Your task to perform on an android device: Open Google Image 0: 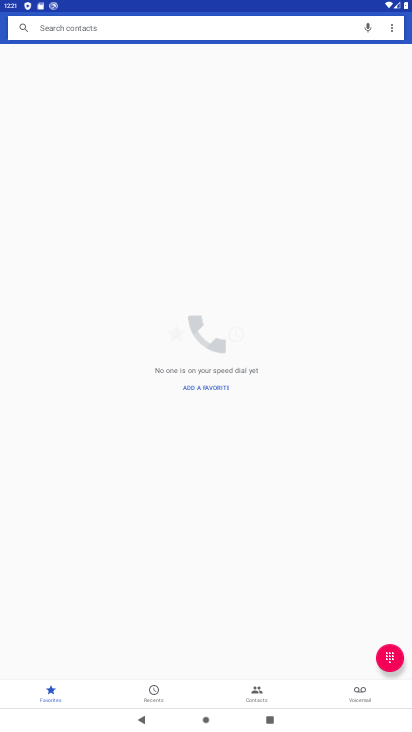
Step 0: press home button
Your task to perform on an android device: Open Google Image 1: 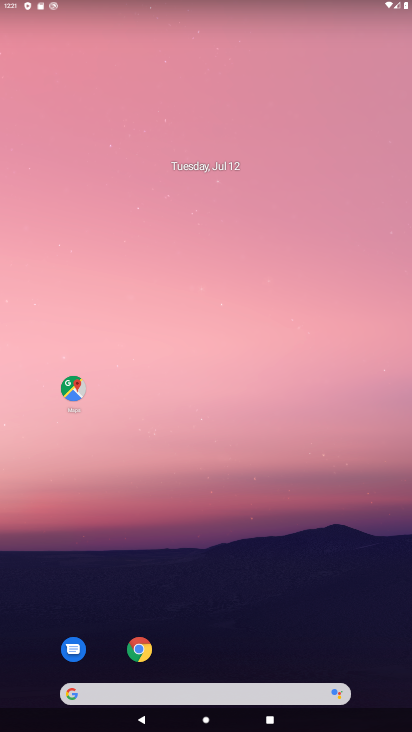
Step 1: drag from (239, 630) to (132, 139)
Your task to perform on an android device: Open Google Image 2: 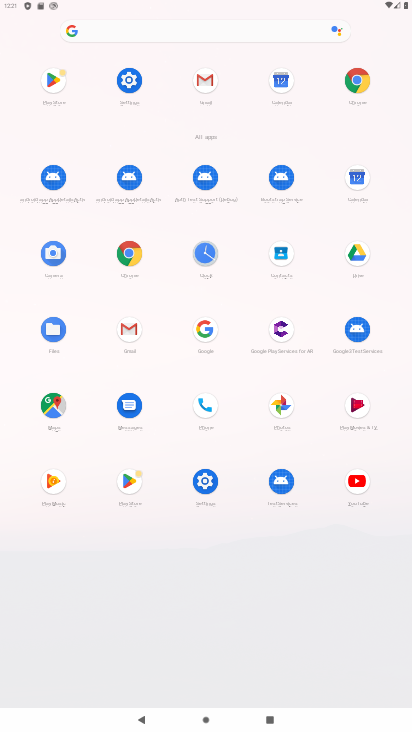
Step 2: click (355, 78)
Your task to perform on an android device: Open Google Image 3: 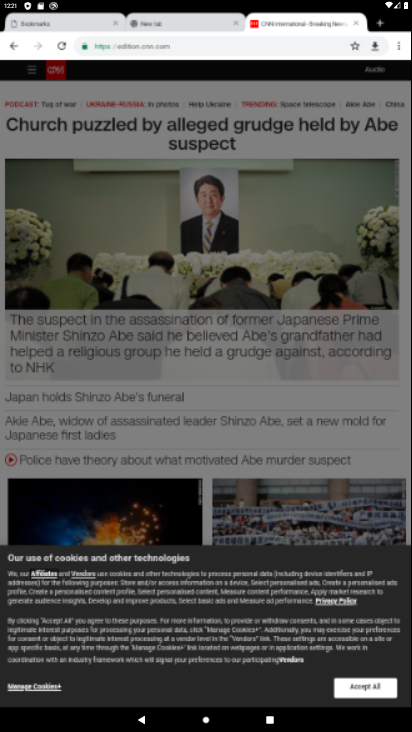
Step 3: click (380, 26)
Your task to perform on an android device: Open Google Image 4: 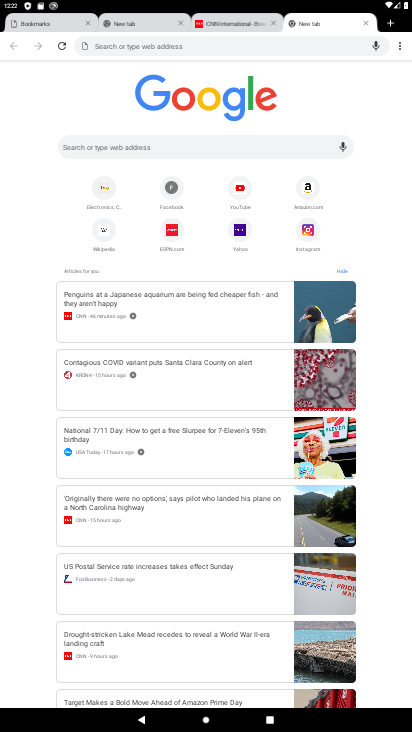
Step 4: type "GOOGLE.COM"
Your task to perform on an android device: Open Google Image 5: 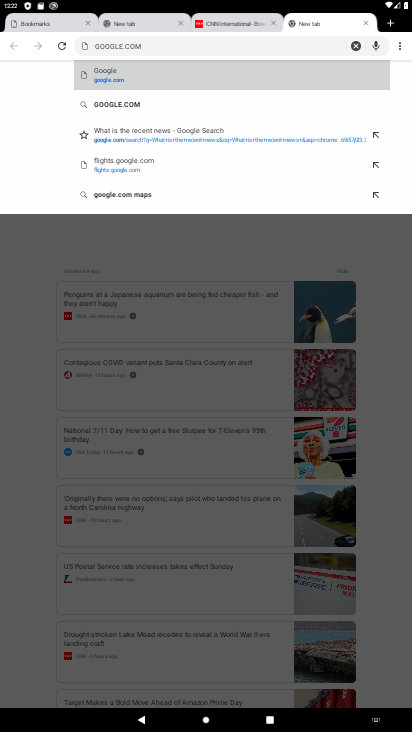
Step 5: click (155, 74)
Your task to perform on an android device: Open Google Image 6: 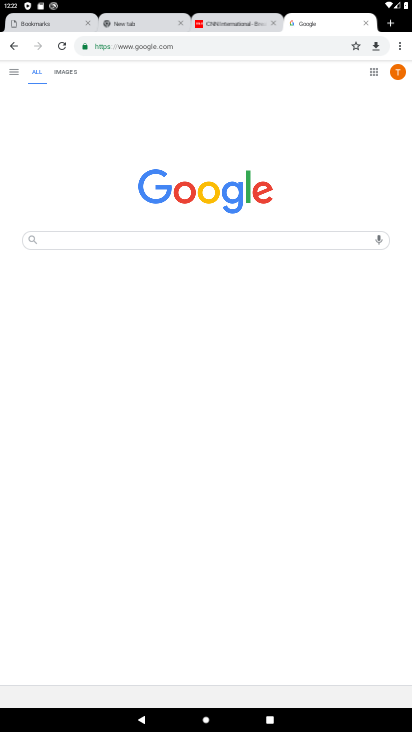
Step 6: task complete